Your task to perform on an android device: Do I have any events tomorrow? Image 0: 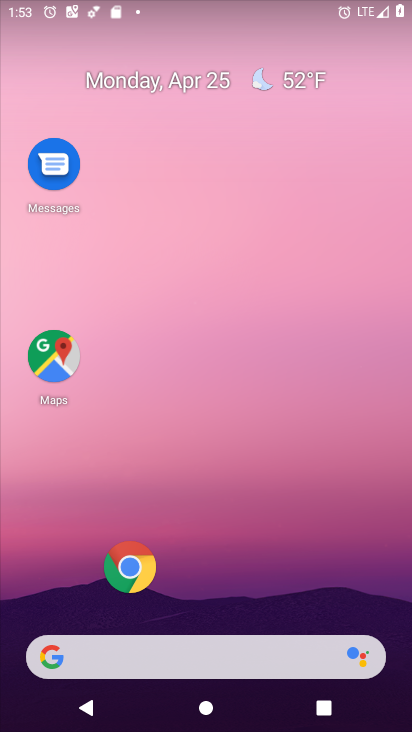
Step 0: drag from (198, 529) to (193, 120)
Your task to perform on an android device: Do I have any events tomorrow? Image 1: 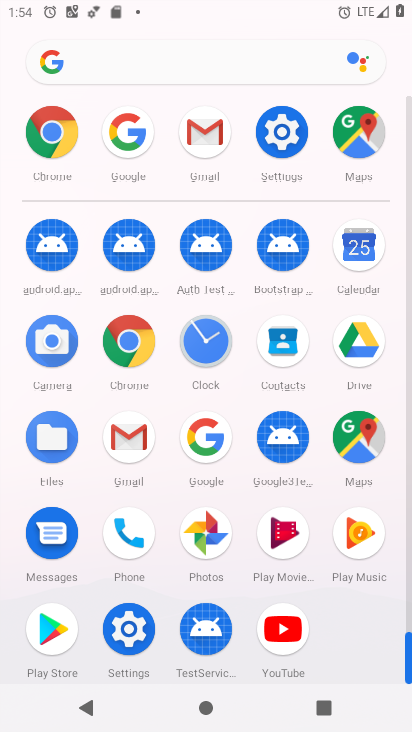
Step 1: click (357, 259)
Your task to perform on an android device: Do I have any events tomorrow? Image 2: 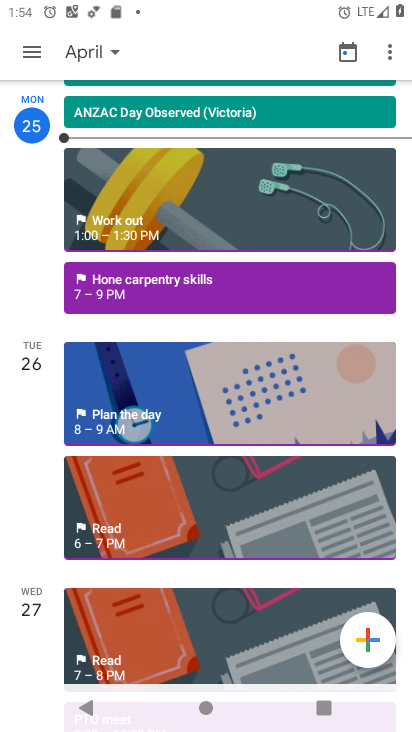
Step 2: task complete